Your task to perform on an android device: set the timer Image 0: 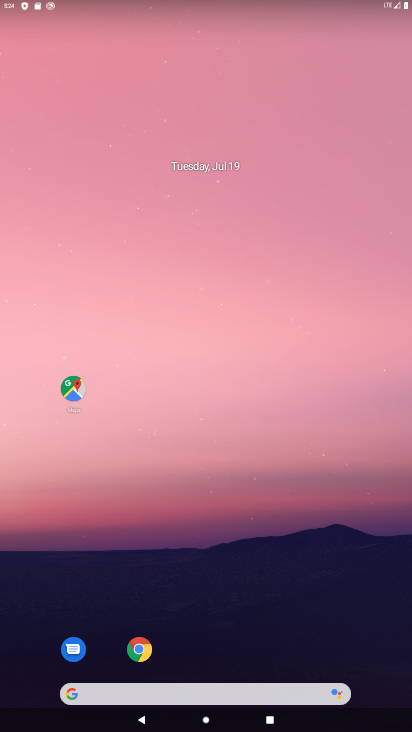
Step 0: drag from (315, 591) to (312, 141)
Your task to perform on an android device: set the timer Image 1: 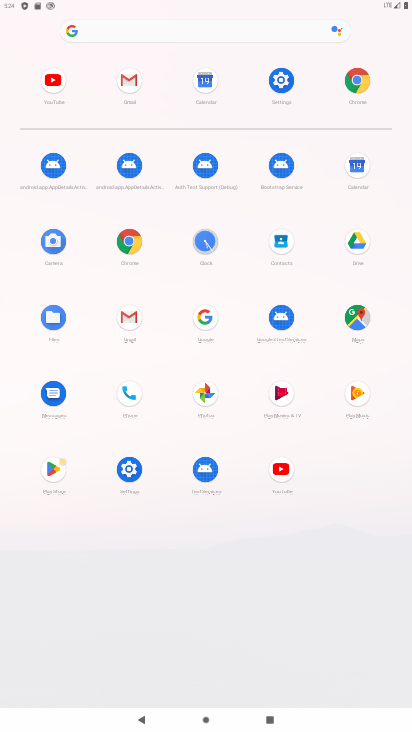
Step 1: click (198, 245)
Your task to perform on an android device: set the timer Image 2: 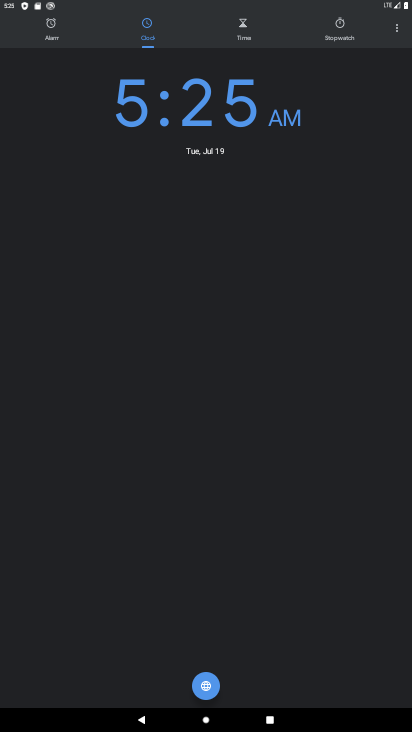
Step 2: click (397, 18)
Your task to perform on an android device: set the timer Image 3: 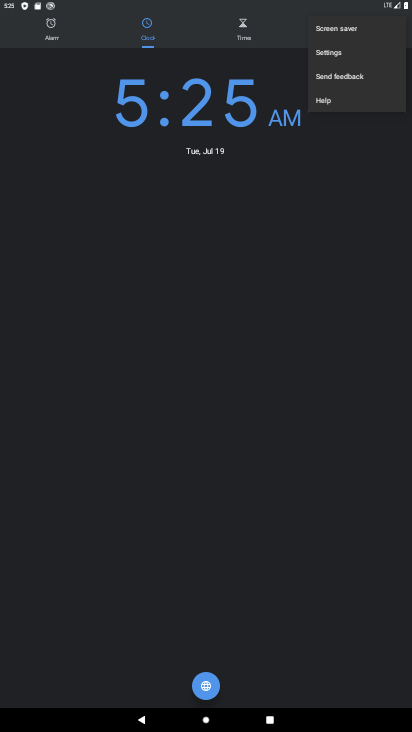
Step 3: click (56, 35)
Your task to perform on an android device: set the timer Image 4: 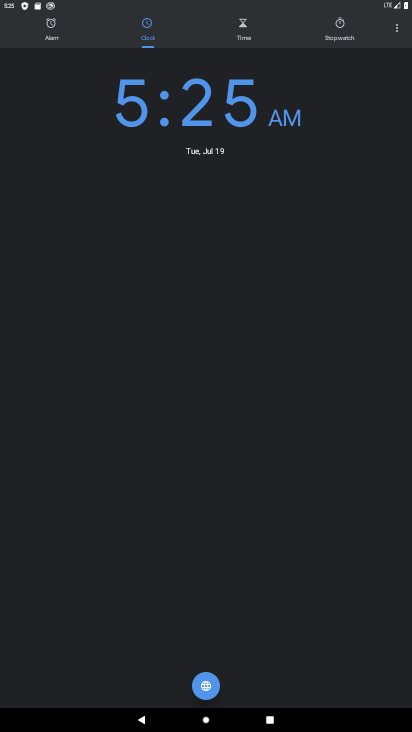
Step 4: click (253, 26)
Your task to perform on an android device: set the timer Image 5: 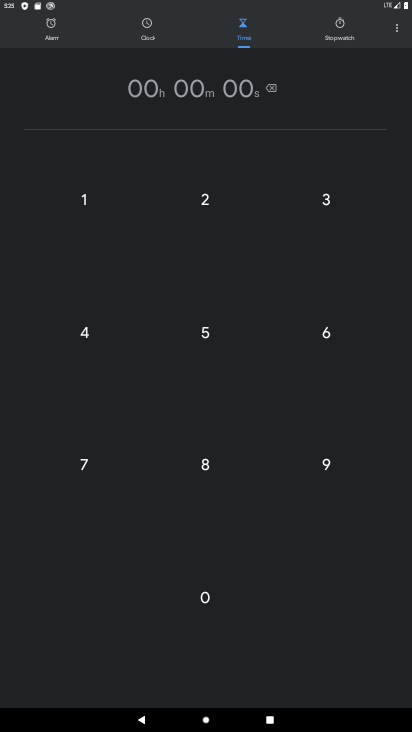
Step 5: click (203, 335)
Your task to perform on an android device: set the timer Image 6: 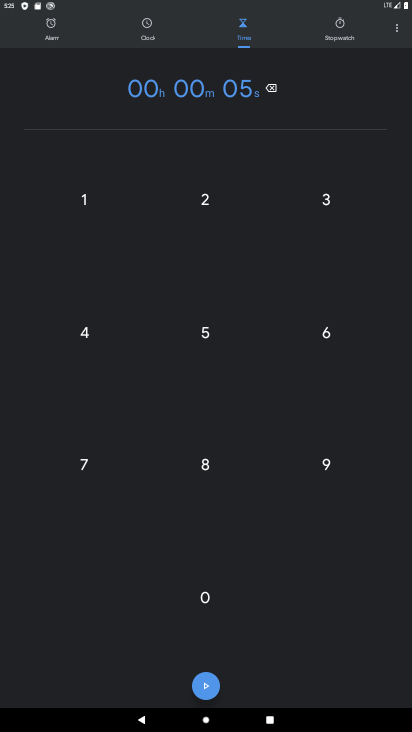
Step 6: task complete